Your task to perform on an android device: Open Chrome and go to the settings page Image 0: 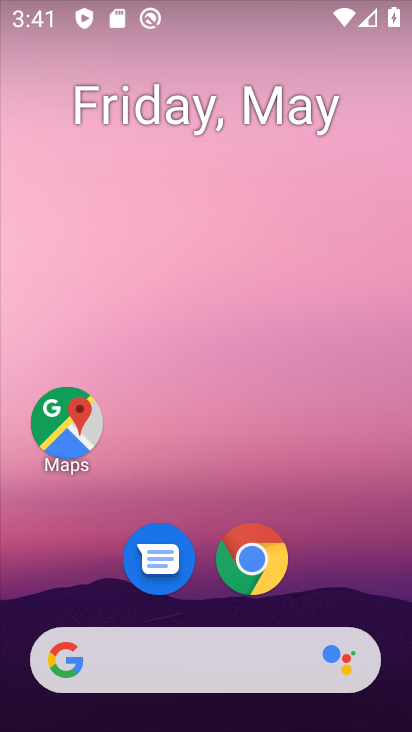
Step 0: click (245, 567)
Your task to perform on an android device: Open Chrome and go to the settings page Image 1: 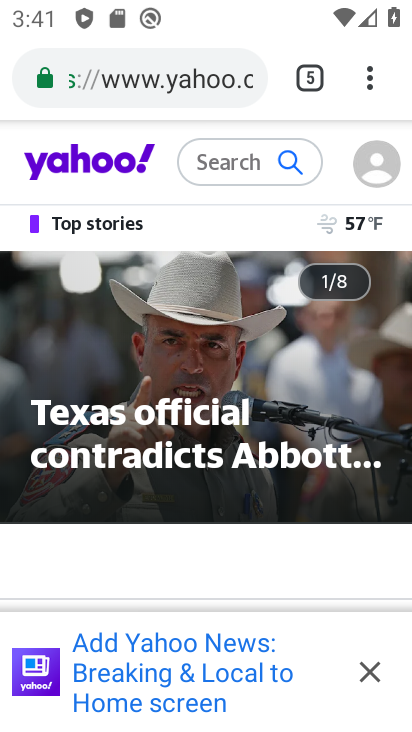
Step 1: click (364, 77)
Your task to perform on an android device: Open Chrome and go to the settings page Image 2: 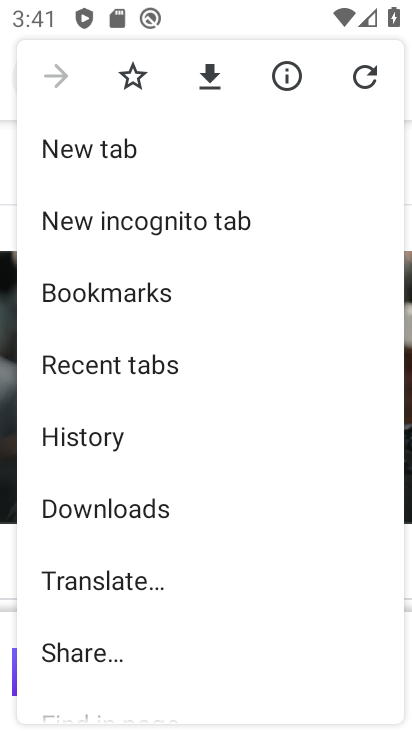
Step 2: drag from (277, 666) to (358, 300)
Your task to perform on an android device: Open Chrome and go to the settings page Image 3: 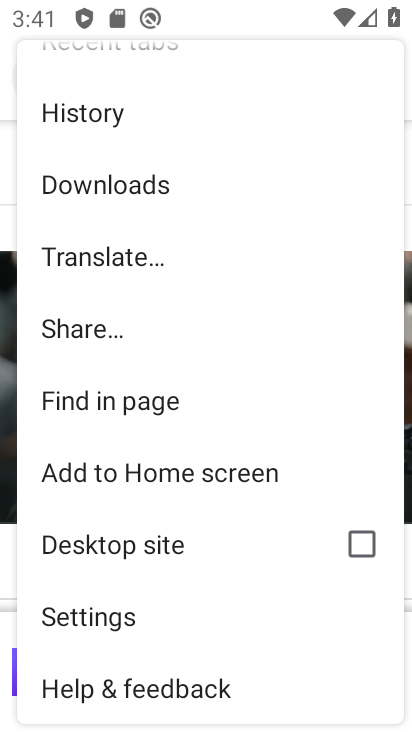
Step 3: click (113, 614)
Your task to perform on an android device: Open Chrome and go to the settings page Image 4: 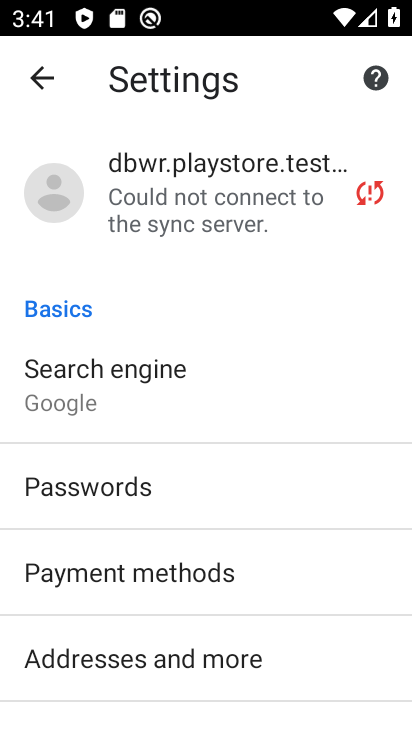
Step 4: task complete